Your task to perform on an android device: Open sound settings Image 0: 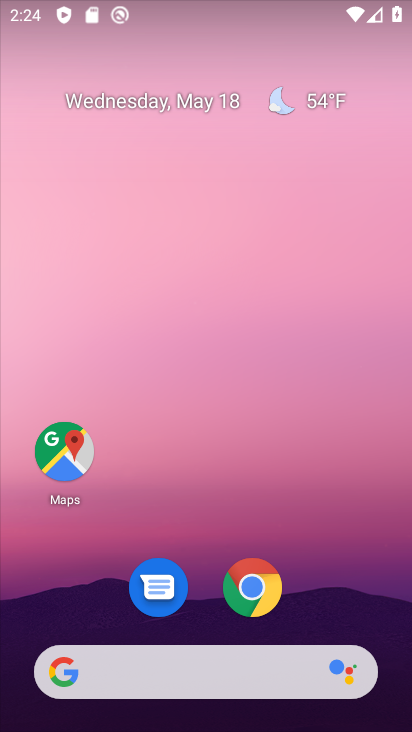
Step 0: drag from (362, 603) to (333, 54)
Your task to perform on an android device: Open sound settings Image 1: 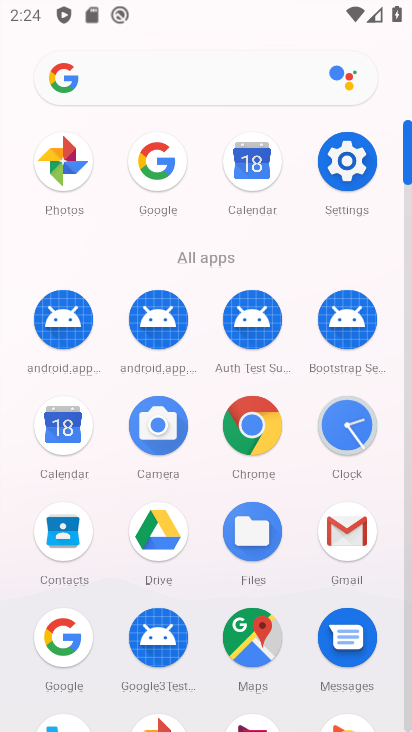
Step 1: click (339, 200)
Your task to perform on an android device: Open sound settings Image 2: 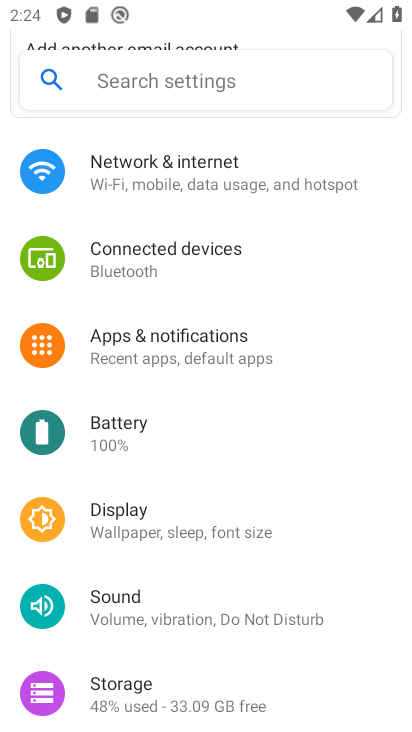
Step 2: click (261, 619)
Your task to perform on an android device: Open sound settings Image 3: 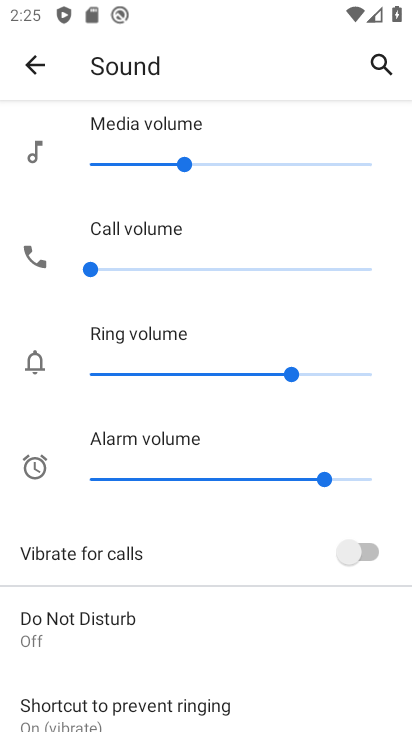
Step 3: task complete